Your task to perform on an android device: check google app version Image 0: 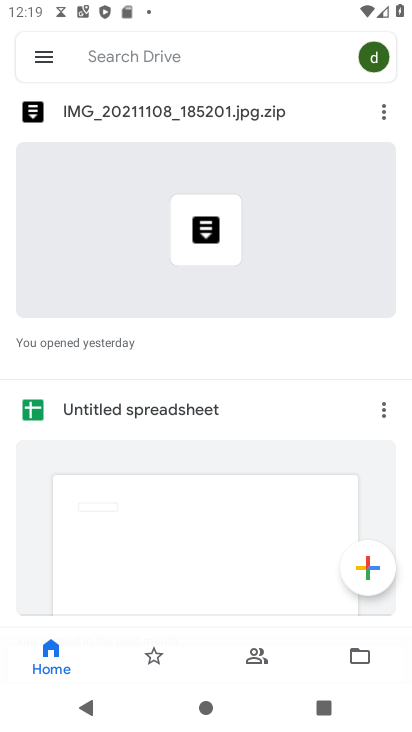
Step 0: press home button
Your task to perform on an android device: check google app version Image 1: 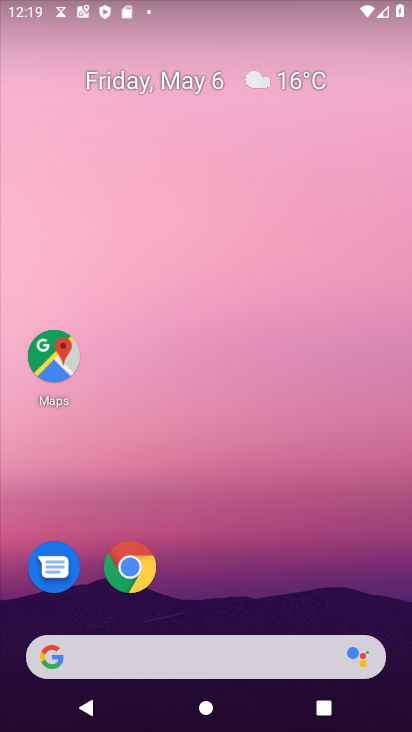
Step 1: drag from (290, 543) to (251, 102)
Your task to perform on an android device: check google app version Image 2: 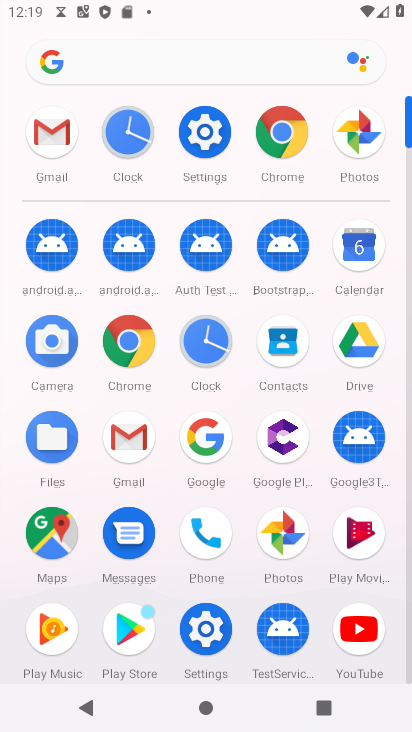
Step 2: click (212, 437)
Your task to perform on an android device: check google app version Image 3: 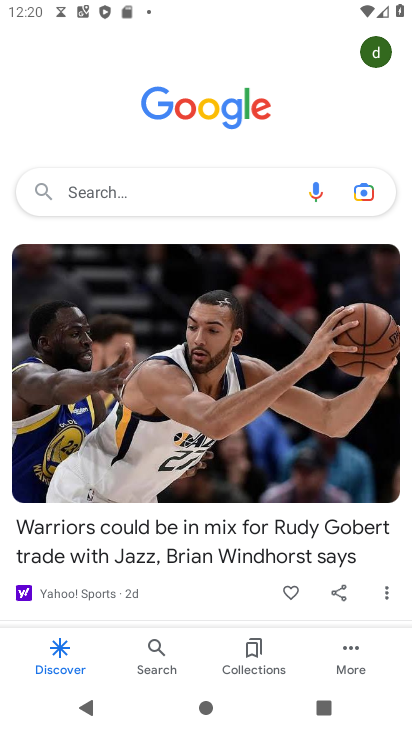
Step 3: click (351, 651)
Your task to perform on an android device: check google app version Image 4: 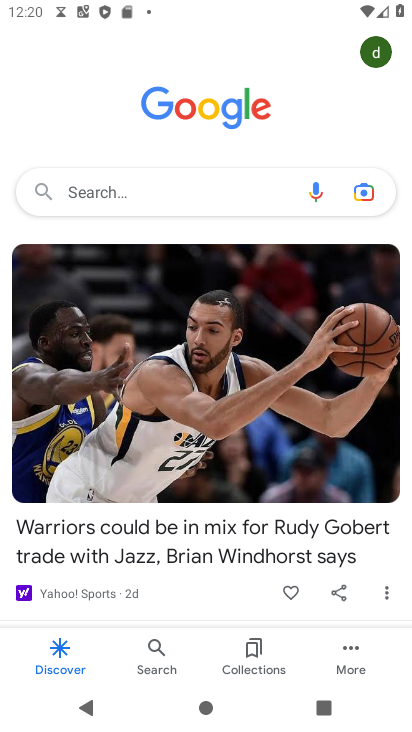
Step 4: click (334, 654)
Your task to perform on an android device: check google app version Image 5: 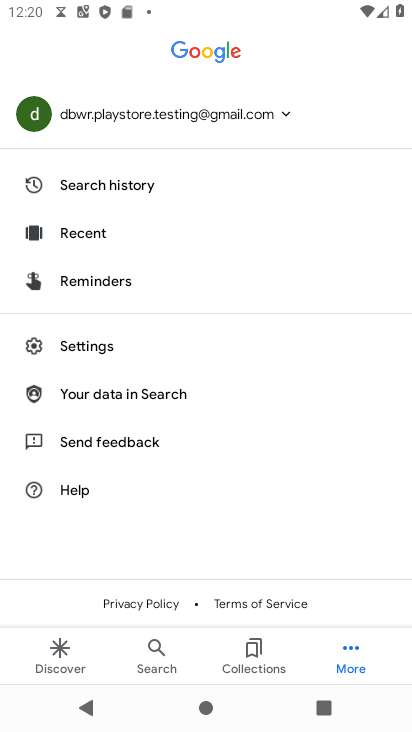
Step 5: click (76, 345)
Your task to perform on an android device: check google app version Image 6: 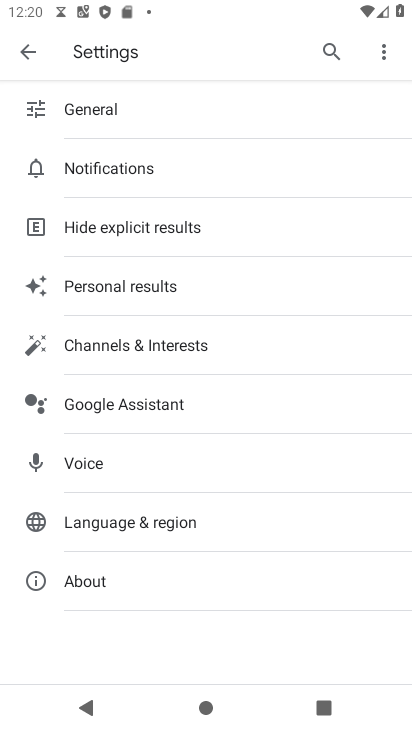
Step 6: click (107, 586)
Your task to perform on an android device: check google app version Image 7: 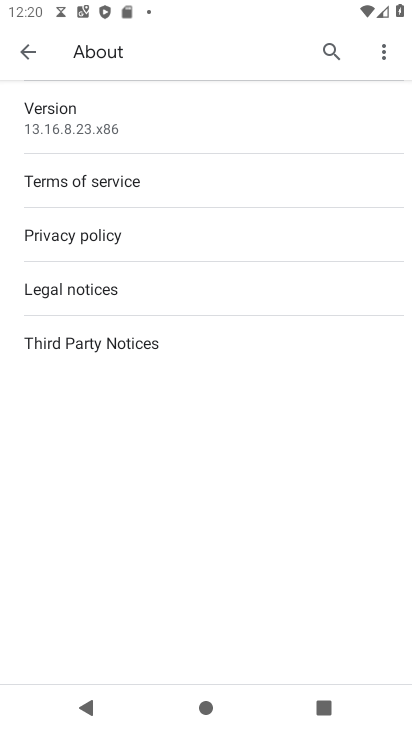
Step 7: click (97, 113)
Your task to perform on an android device: check google app version Image 8: 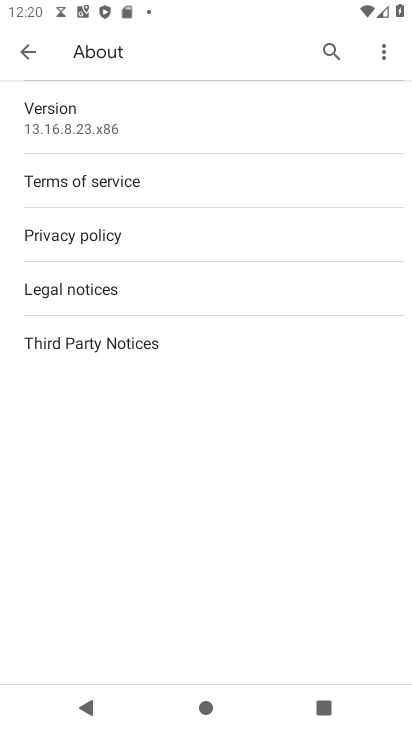
Step 8: task complete